Your task to perform on an android device: Empty the shopping cart on amazon.com. Image 0: 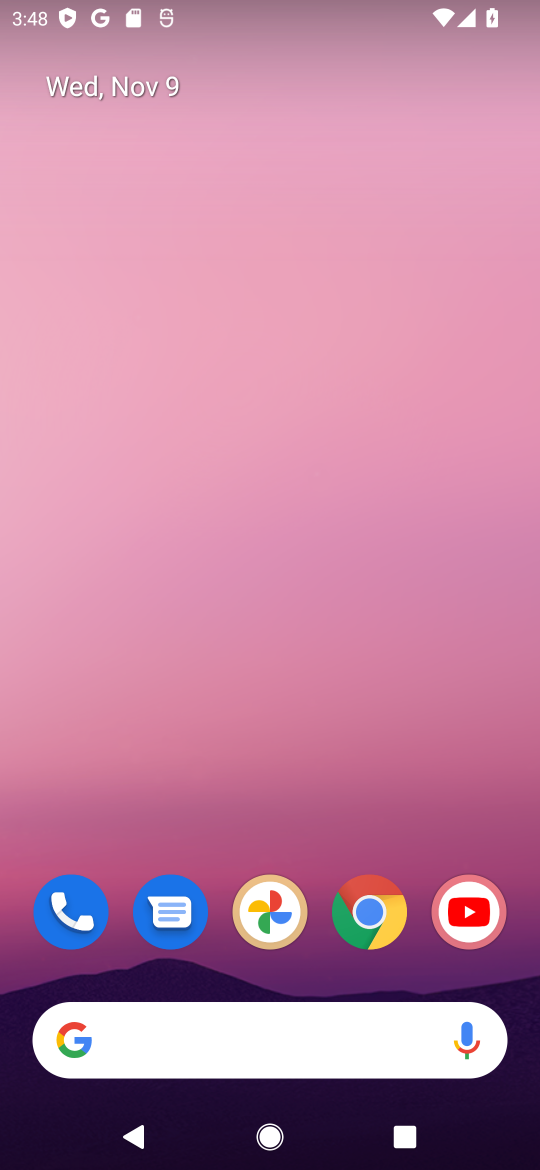
Step 0: click (371, 913)
Your task to perform on an android device: Empty the shopping cart on amazon.com. Image 1: 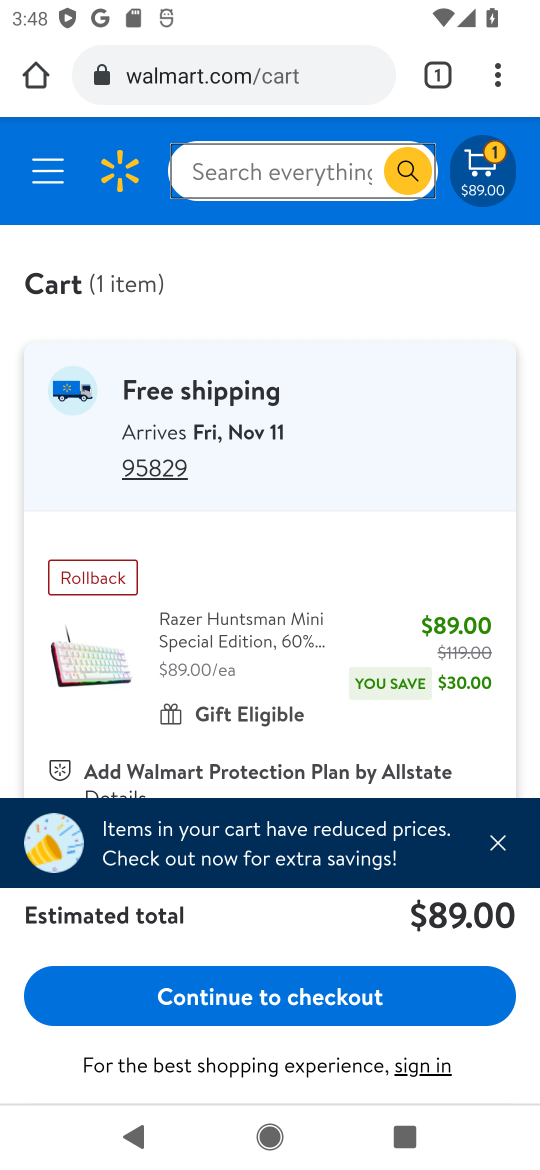
Step 1: click (268, 67)
Your task to perform on an android device: Empty the shopping cart on amazon.com. Image 2: 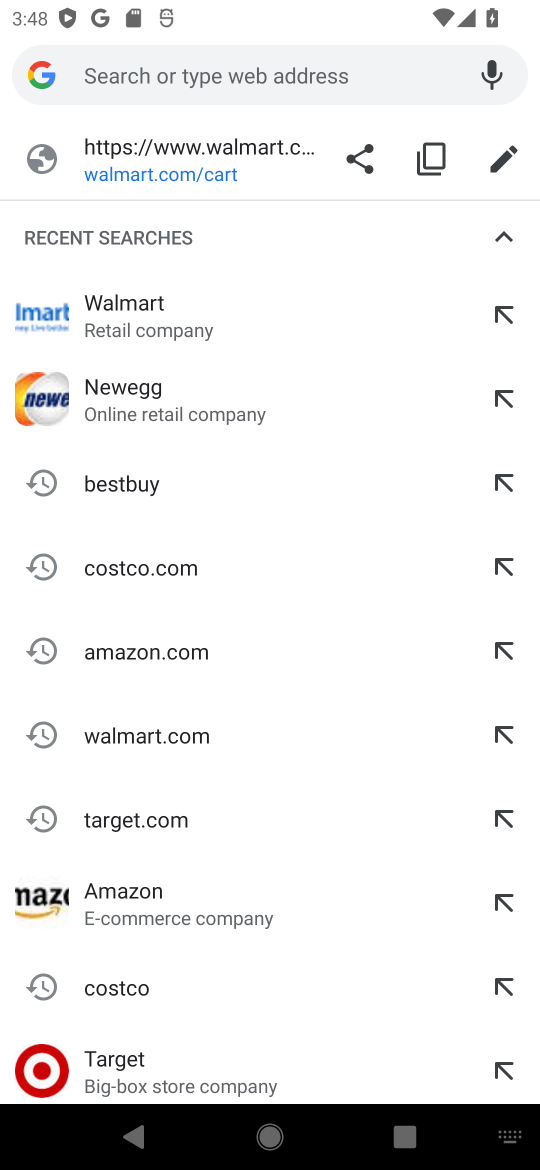
Step 2: type "amazon.com"
Your task to perform on an android device: Empty the shopping cart on amazon.com. Image 3: 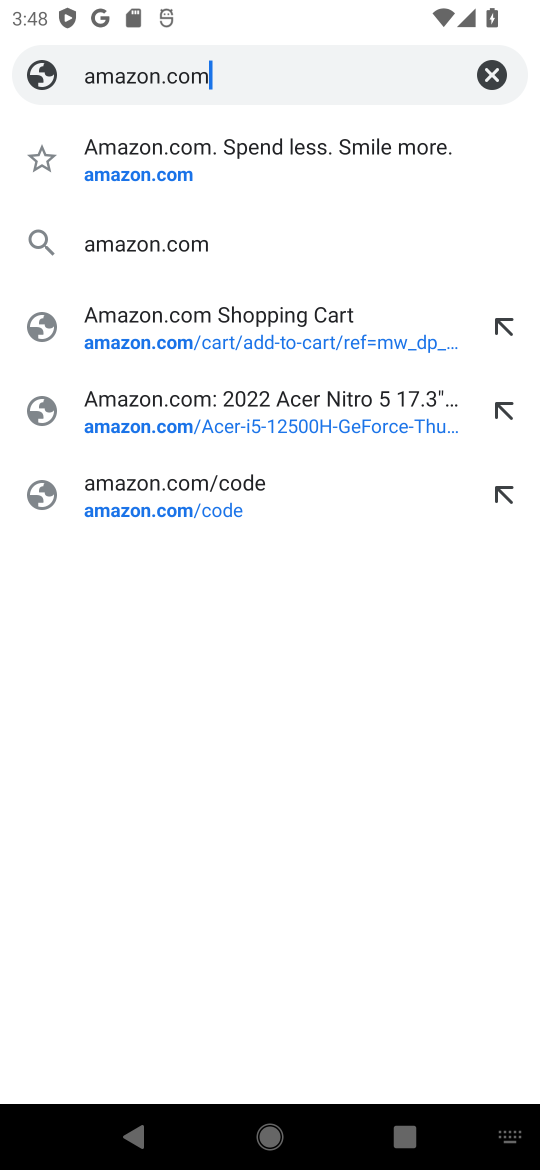
Step 3: click (206, 246)
Your task to perform on an android device: Empty the shopping cart on amazon.com. Image 4: 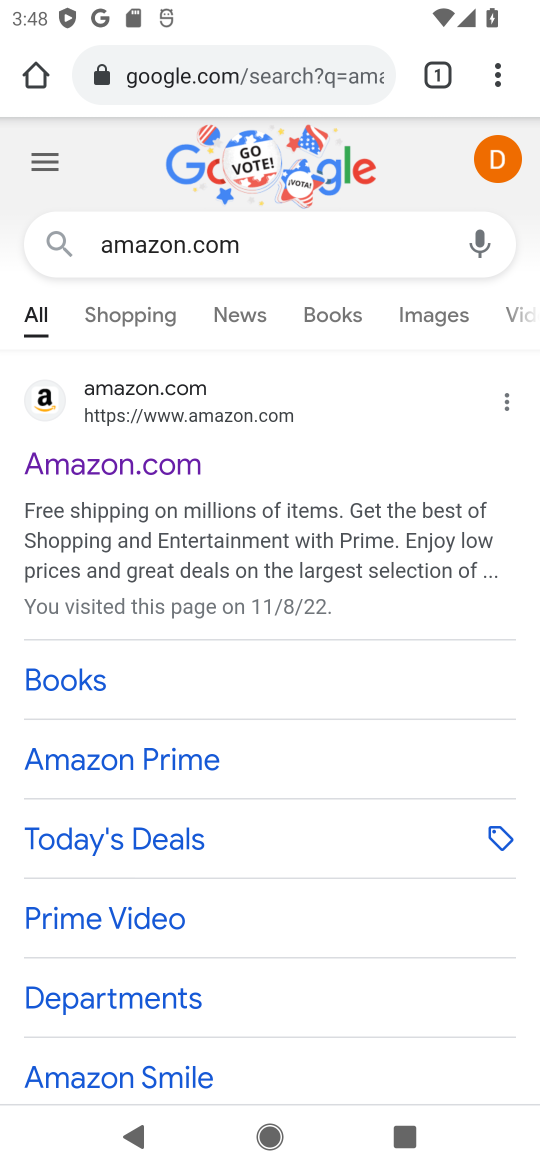
Step 4: click (162, 464)
Your task to perform on an android device: Empty the shopping cart on amazon.com. Image 5: 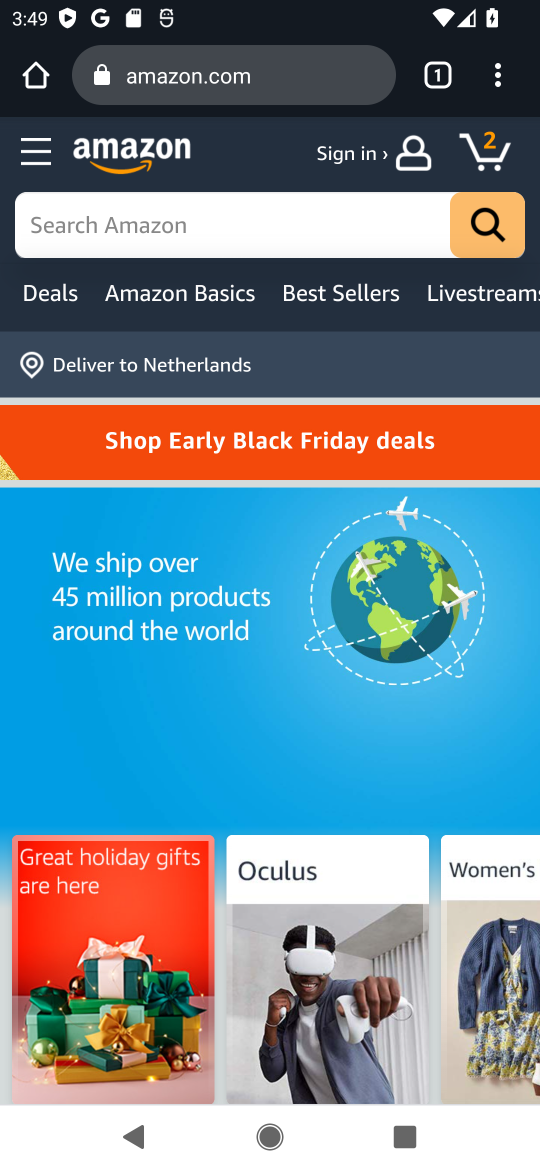
Step 5: click (490, 151)
Your task to perform on an android device: Empty the shopping cart on amazon.com. Image 6: 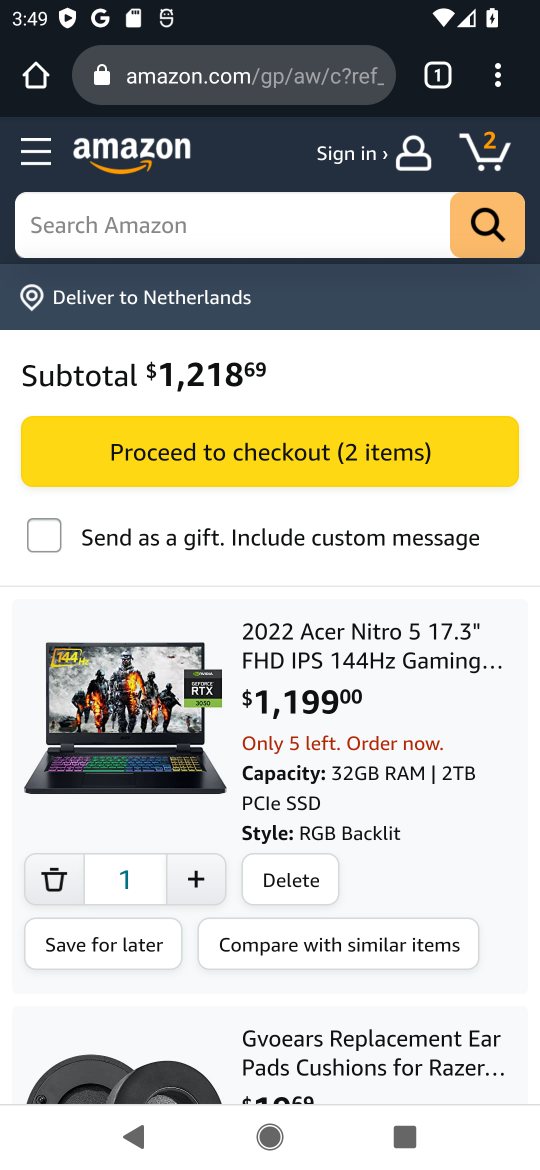
Step 6: click (280, 881)
Your task to perform on an android device: Empty the shopping cart on amazon.com. Image 7: 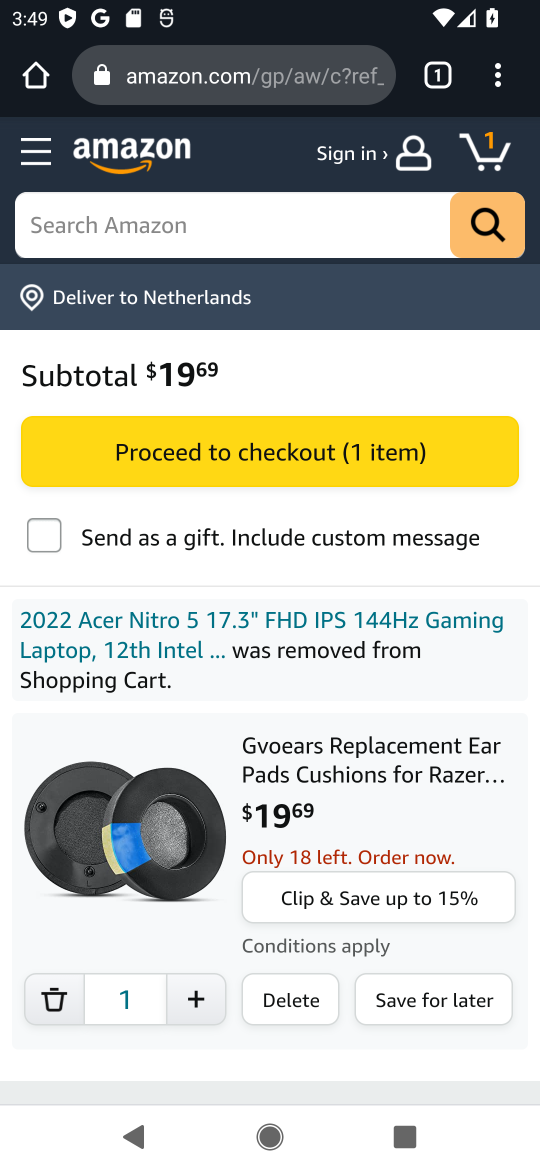
Step 7: click (294, 995)
Your task to perform on an android device: Empty the shopping cart on amazon.com. Image 8: 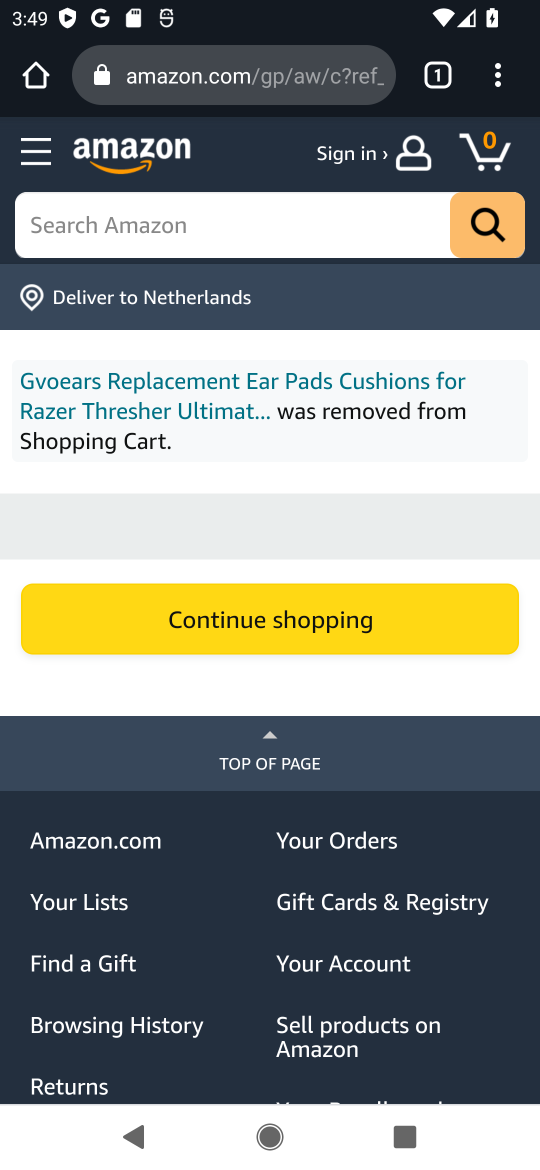
Step 8: task complete